Your task to perform on an android device: allow notifications from all sites in the chrome app Image 0: 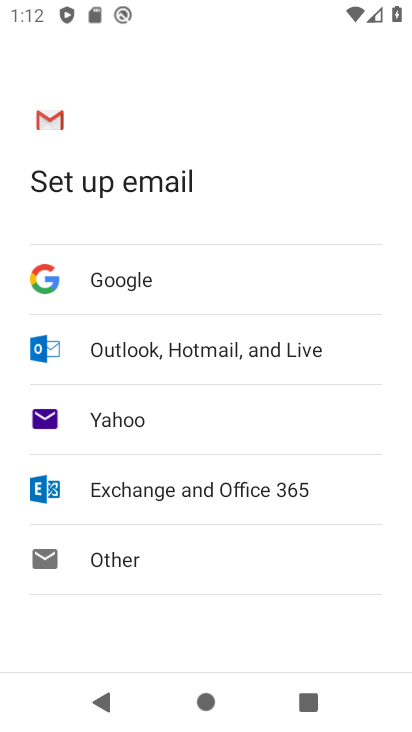
Step 0: press home button
Your task to perform on an android device: allow notifications from all sites in the chrome app Image 1: 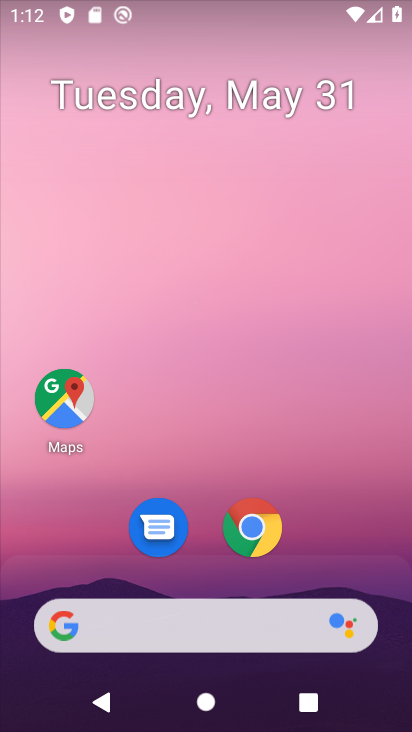
Step 1: drag from (367, 530) to (348, 14)
Your task to perform on an android device: allow notifications from all sites in the chrome app Image 2: 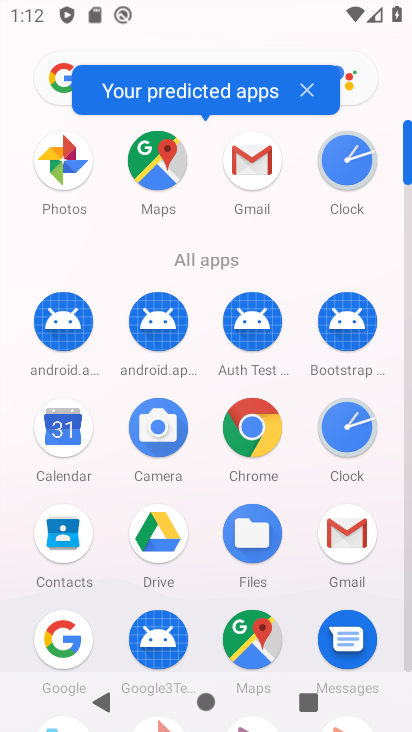
Step 2: click (250, 432)
Your task to perform on an android device: allow notifications from all sites in the chrome app Image 3: 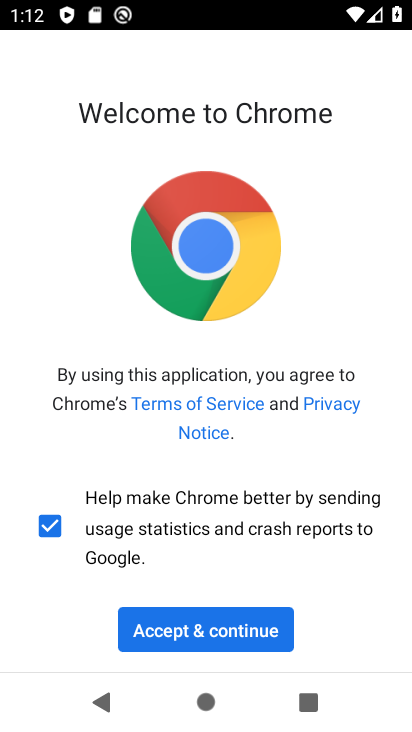
Step 3: click (248, 618)
Your task to perform on an android device: allow notifications from all sites in the chrome app Image 4: 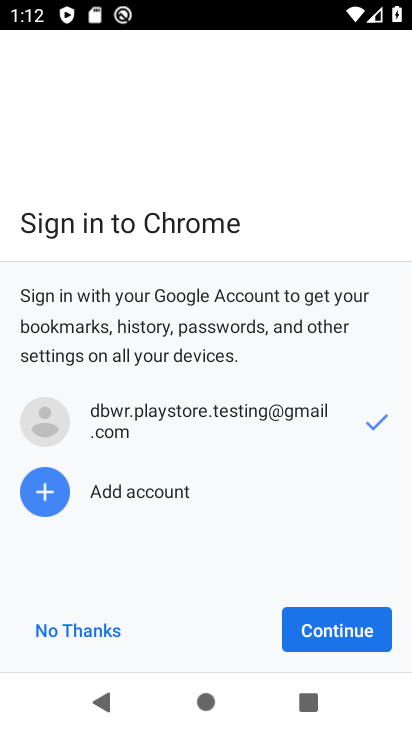
Step 4: click (91, 642)
Your task to perform on an android device: allow notifications from all sites in the chrome app Image 5: 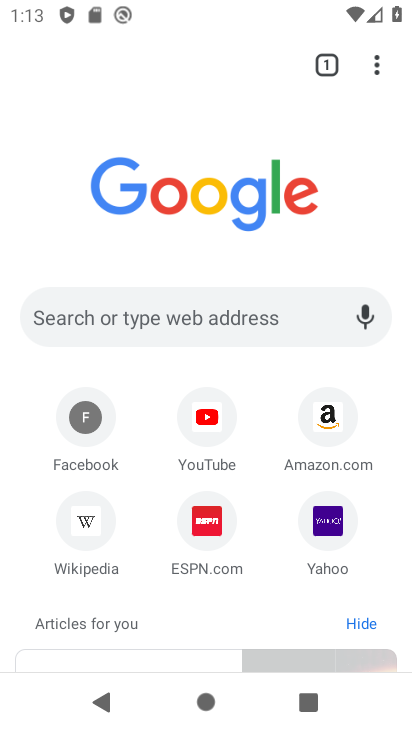
Step 5: drag from (372, 67) to (173, 560)
Your task to perform on an android device: allow notifications from all sites in the chrome app Image 6: 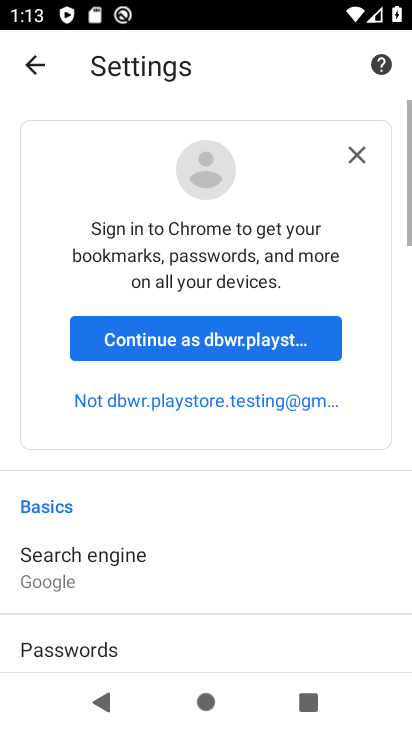
Step 6: drag from (176, 543) to (219, 126)
Your task to perform on an android device: allow notifications from all sites in the chrome app Image 7: 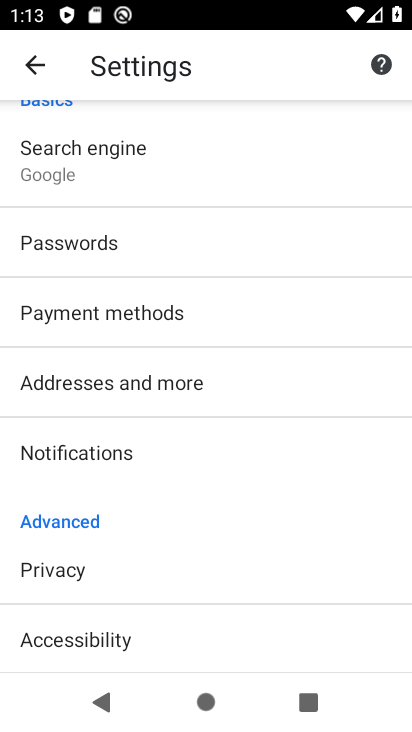
Step 7: drag from (145, 557) to (147, 182)
Your task to perform on an android device: allow notifications from all sites in the chrome app Image 8: 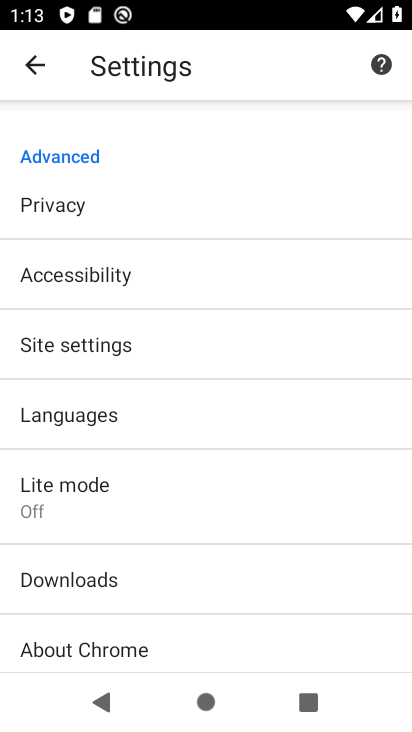
Step 8: click (95, 353)
Your task to perform on an android device: allow notifications from all sites in the chrome app Image 9: 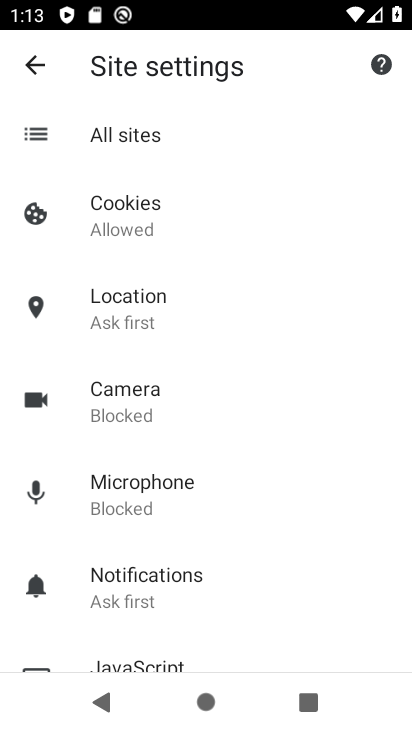
Step 9: drag from (196, 593) to (190, 388)
Your task to perform on an android device: allow notifications from all sites in the chrome app Image 10: 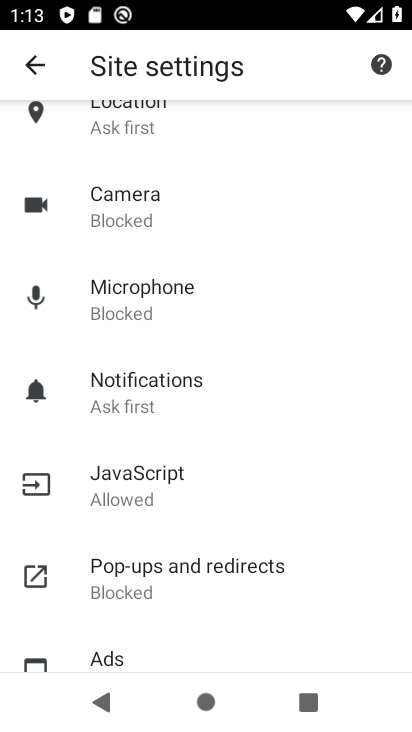
Step 10: click (126, 394)
Your task to perform on an android device: allow notifications from all sites in the chrome app Image 11: 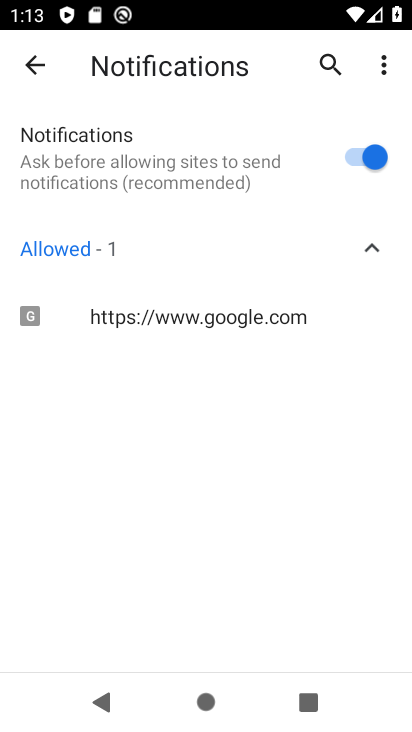
Step 11: task complete